Your task to perform on an android device: snooze an email in the gmail app Image 0: 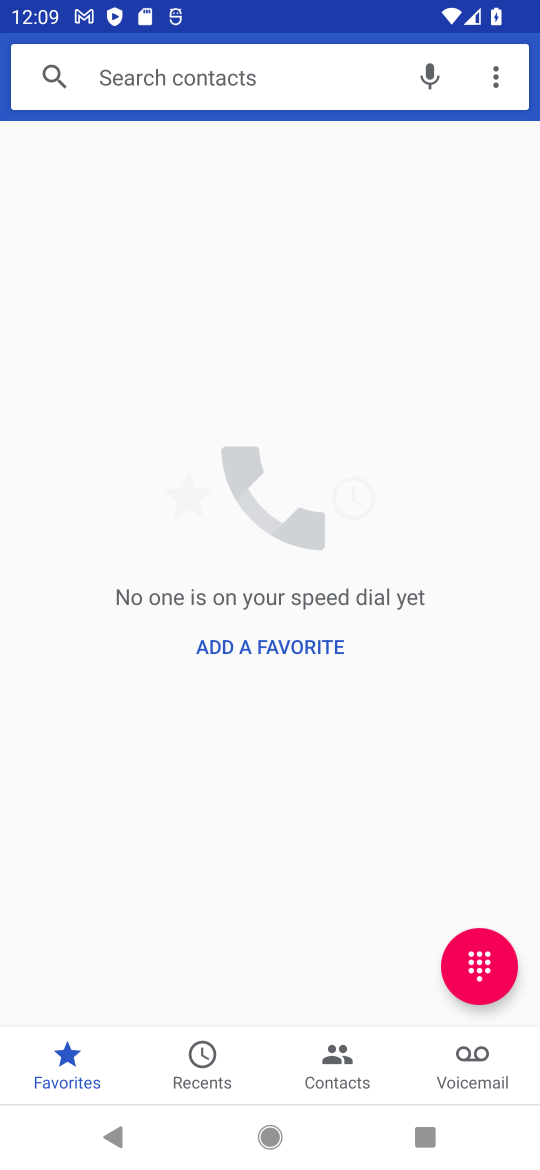
Step 0: press home button
Your task to perform on an android device: snooze an email in the gmail app Image 1: 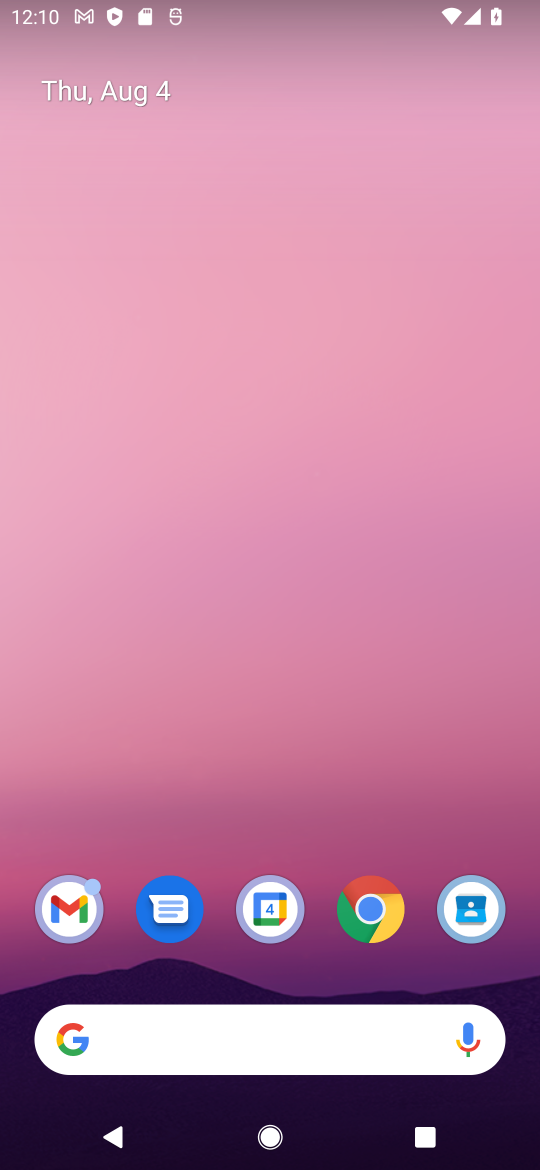
Step 1: click (92, 922)
Your task to perform on an android device: snooze an email in the gmail app Image 2: 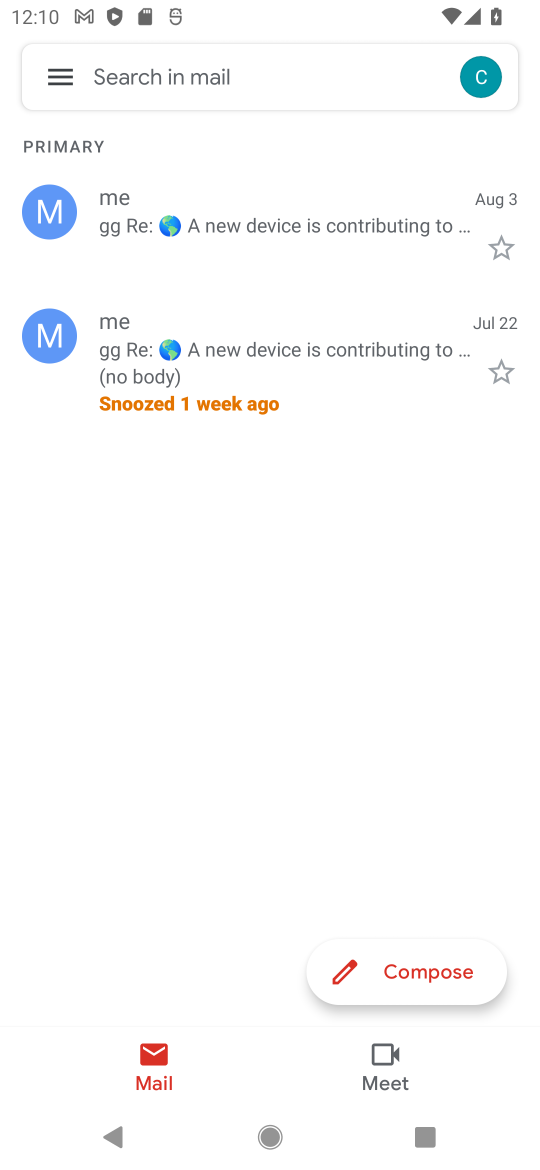
Step 2: click (355, 232)
Your task to perform on an android device: snooze an email in the gmail app Image 3: 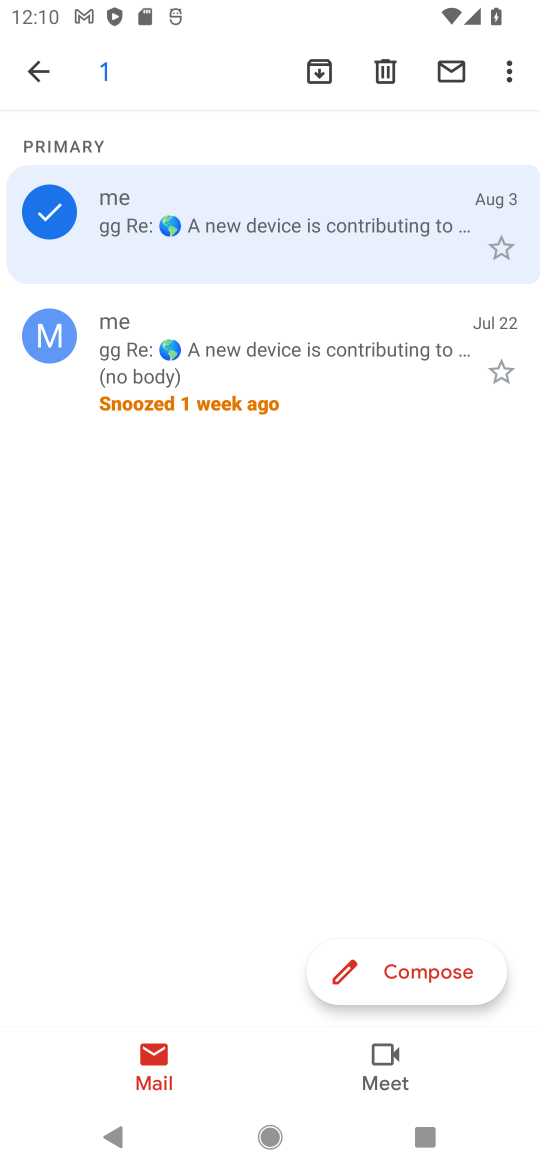
Step 3: click (502, 54)
Your task to perform on an android device: snooze an email in the gmail app Image 4: 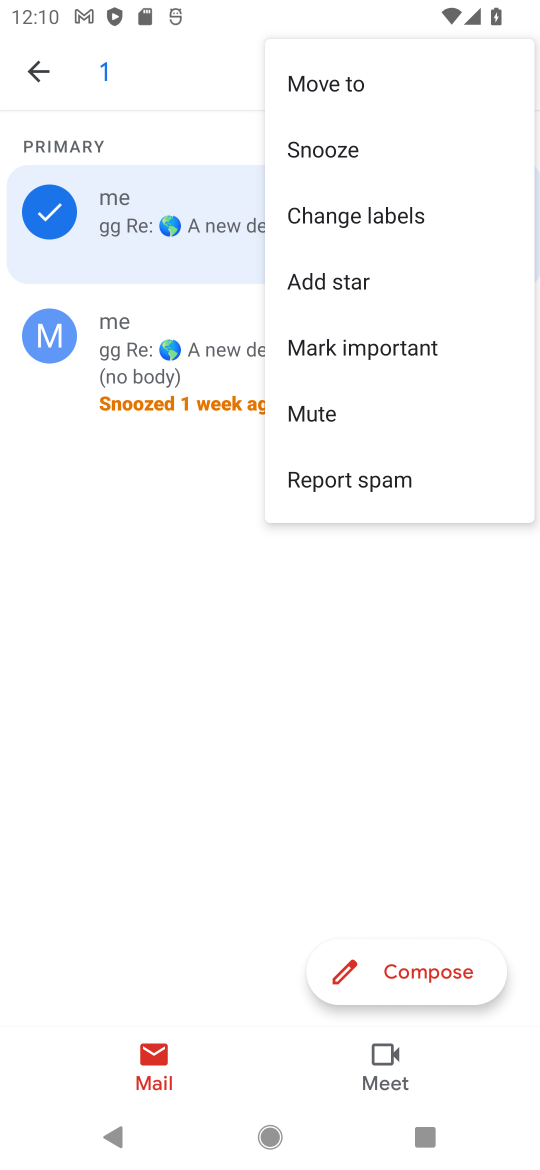
Step 4: click (336, 155)
Your task to perform on an android device: snooze an email in the gmail app Image 5: 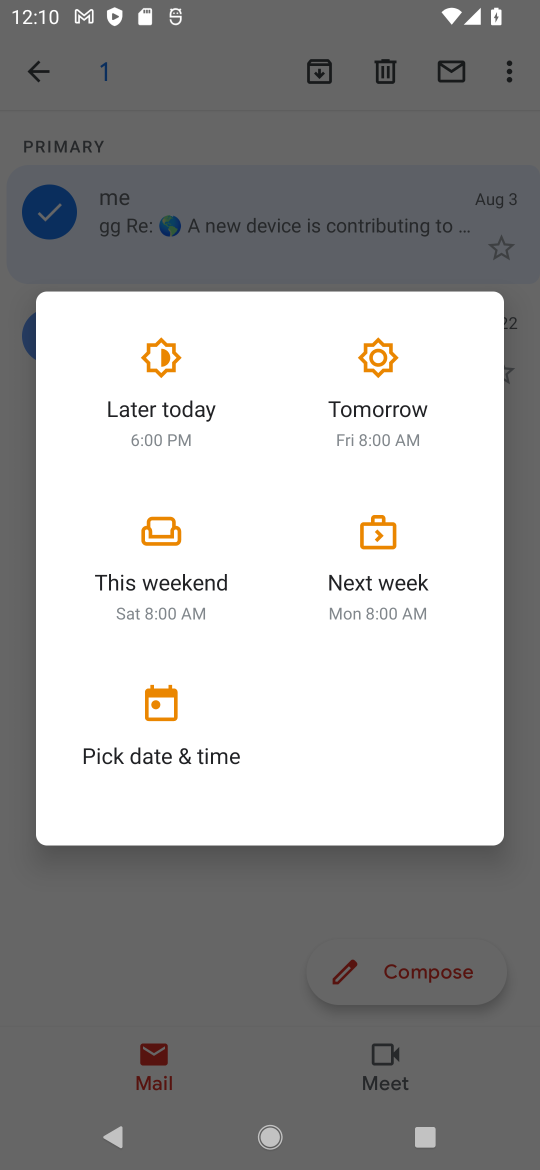
Step 5: click (366, 406)
Your task to perform on an android device: snooze an email in the gmail app Image 6: 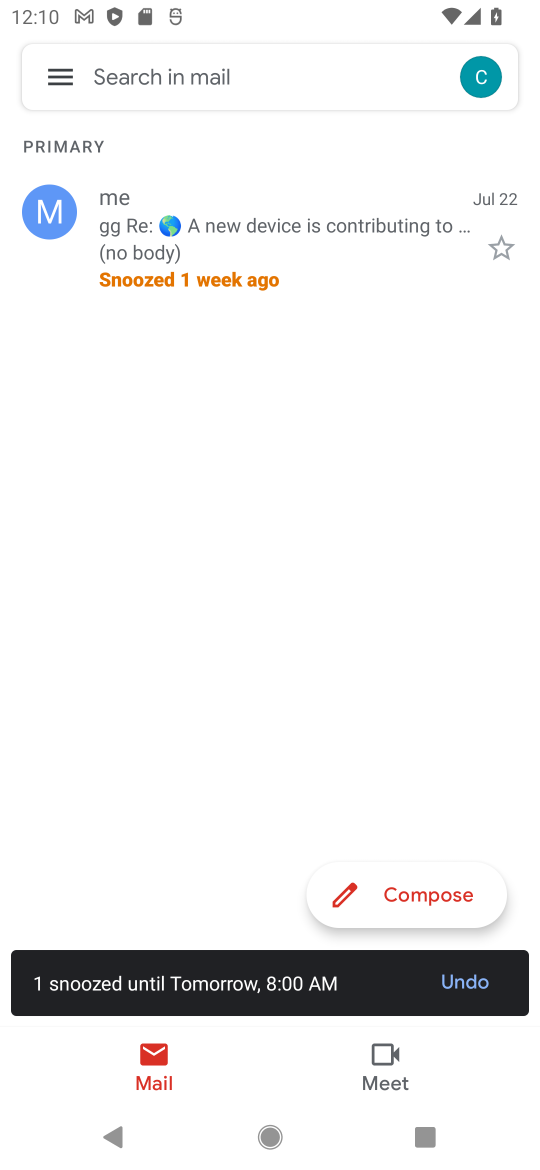
Step 6: task complete